Your task to perform on an android device: move an email to a new category in the gmail app Image 0: 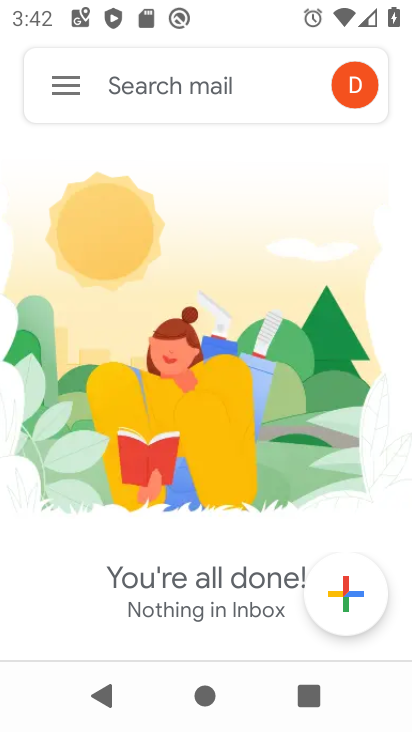
Step 0: press home button
Your task to perform on an android device: move an email to a new category in the gmail app Image 1: 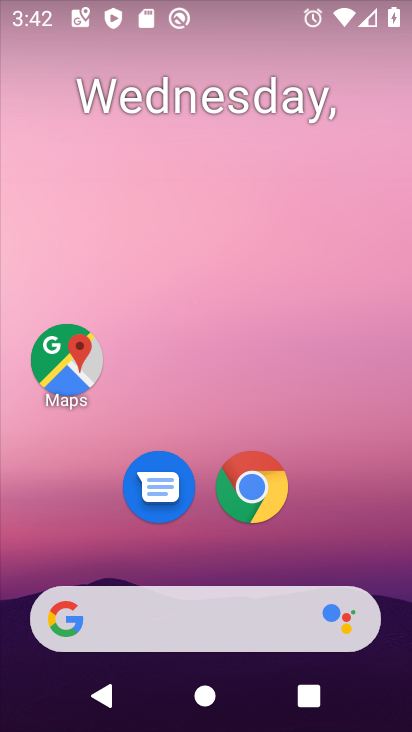
Step 1: drag from (357, 535) to (363, 212)
Your task to perform on an android device: move an email to a new category in the gmail app Image 2: 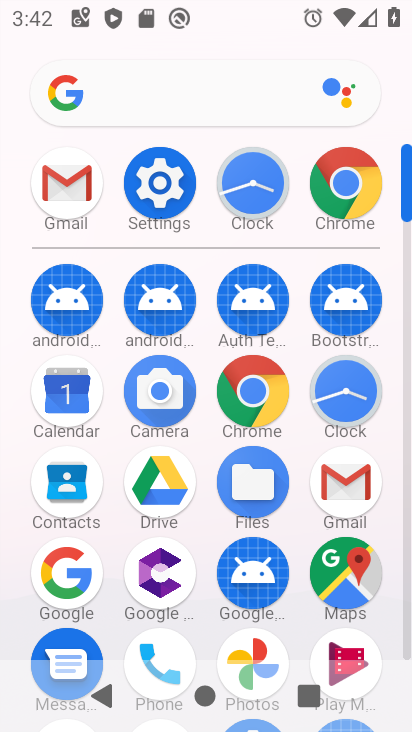
Step 2: click (354, 480)
Your task to perform on an android device: move an email to a new category in the gmail app Image 3: 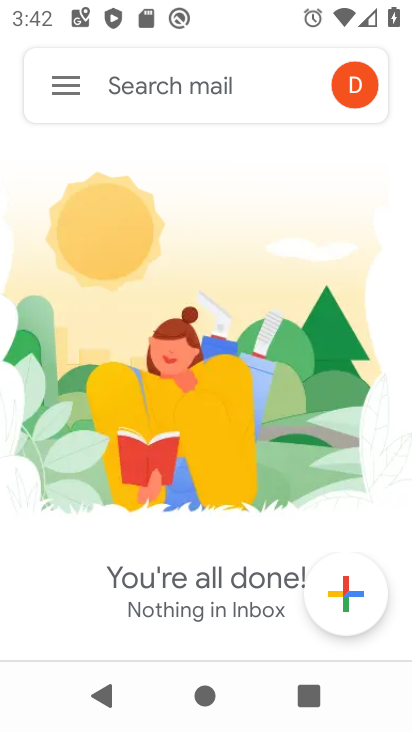
Step 3: click (71, 93)
Your task to perform on an android device: move an email to a new category in the gmail app Image 4: 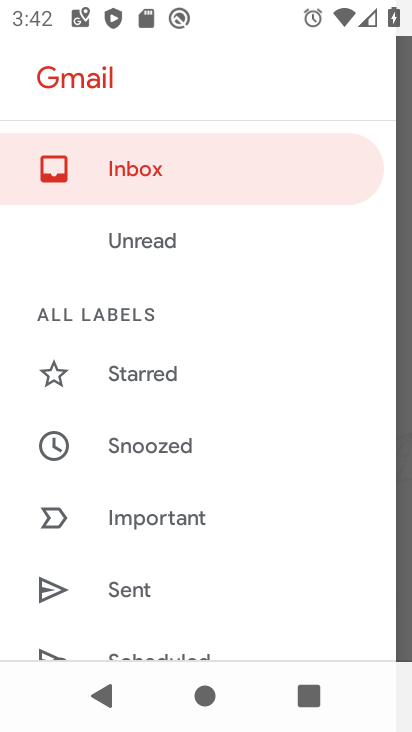
Step 4: drag from (312, 460) to (326, 380)
Your task to perform on an android device: move an email to a new category in the gmail app Image 5: 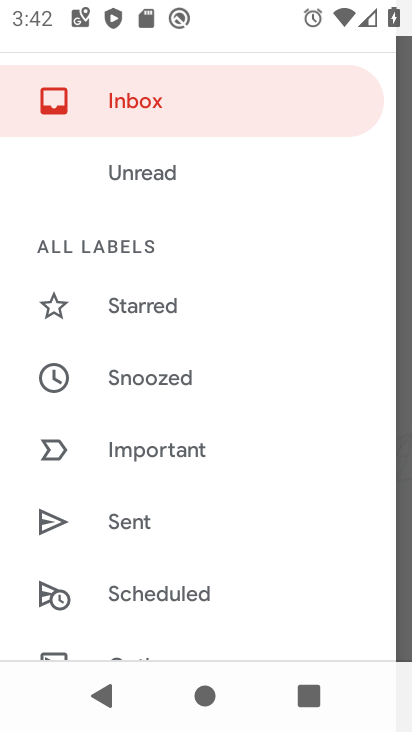
Step 5: drag from (305, 452) to (317, 369)
Your task to perform on an android device: move an email to a new category in the gmail app Image 6: 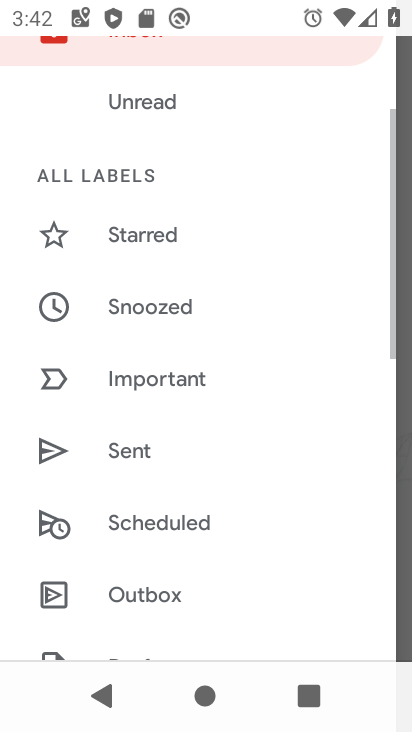
Step 6: drag from (320, 483) to (329, 377)
Your task to perform on an android device: move an email to a new category in the gmail app Image 7: 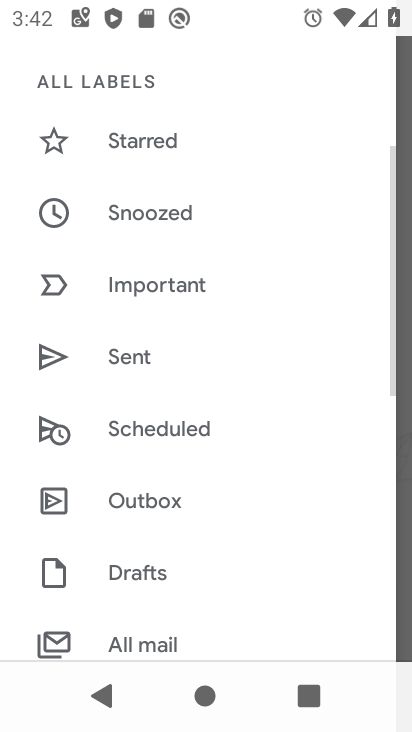
Step 7: drag from (302, 490) to (305, 355)
Your task to perform on an android device: move an email to a new category in the gmail app Image 8: 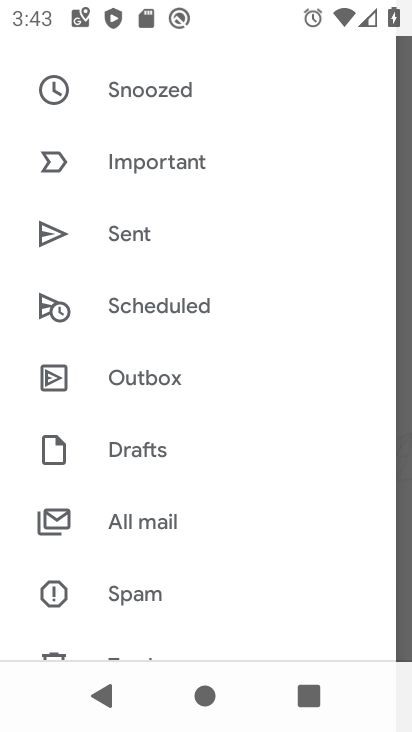
Step 8: drag from (305, 517) to (316, 379)
Your task to perform on an android device: move an email to a new category in the gmail app Image 9: 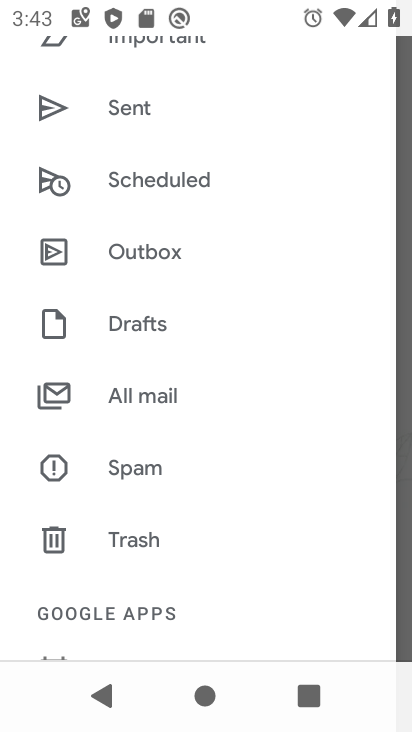
Step 9: drag from (309, 528) to (318, 385)
Your task to perform on an android device: move an email to a new category in the gmail app Image 10: 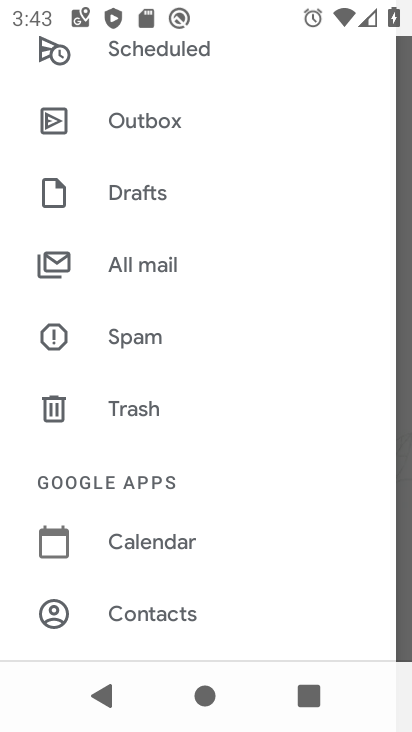
Step 10: drag from (307, 317) to (313, 423)
Your task to perform on an android device: move an email to a new category in the gmail app Image 11: 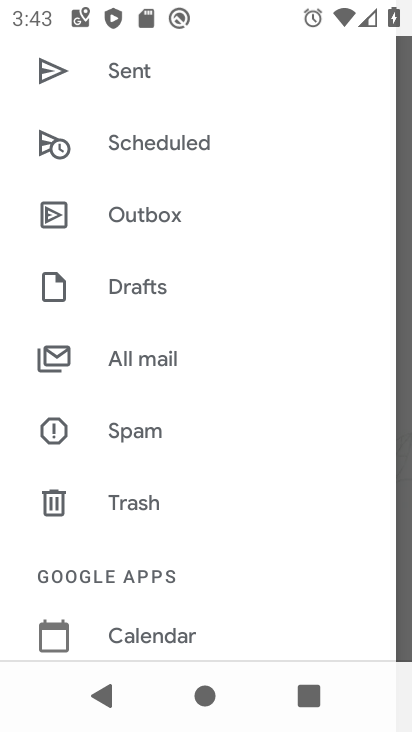
Step 11: drag from (314, 248) to (287, 395)
Your task to perform on an android device: move an email to a new category in the gmail app Image 12: 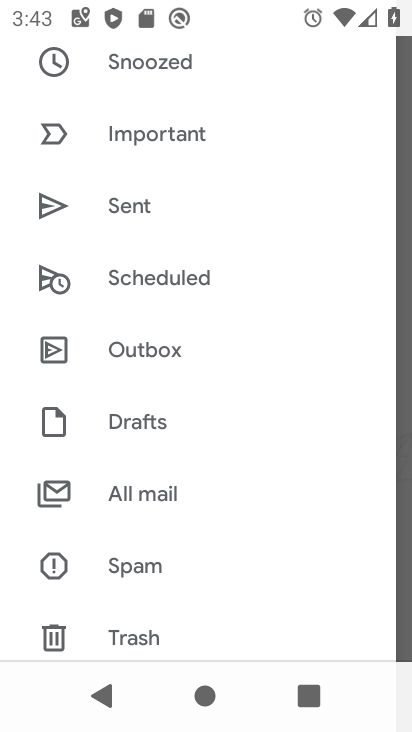
Step 12: drag from (299, 220) to (293, 358)
Your task to perform on an android device: move an email to a new category in the gmail app Image 13: 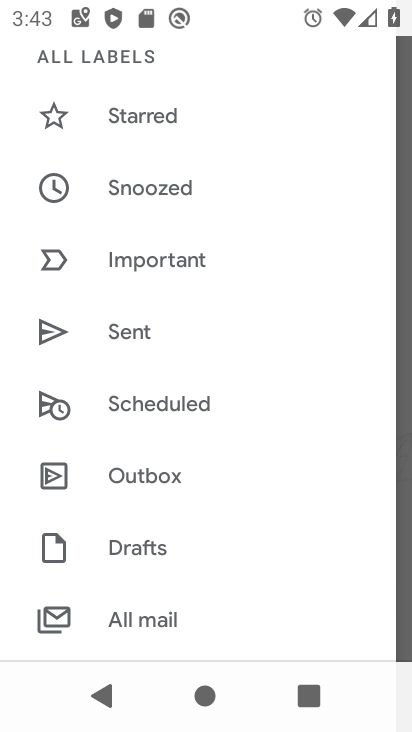
Step 13: drag from (274, 200) to (262, 347)
Your task to perform on an android device: move an email to a new category in the gmail app Image 14: 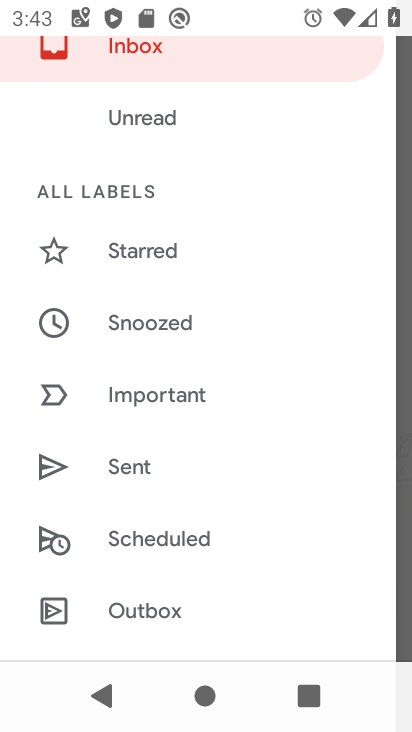
Step 14: drag from (261, 166) to (251, 334)
Your task to perform on an android device: move an email to a new category in the gmail app Image 15: 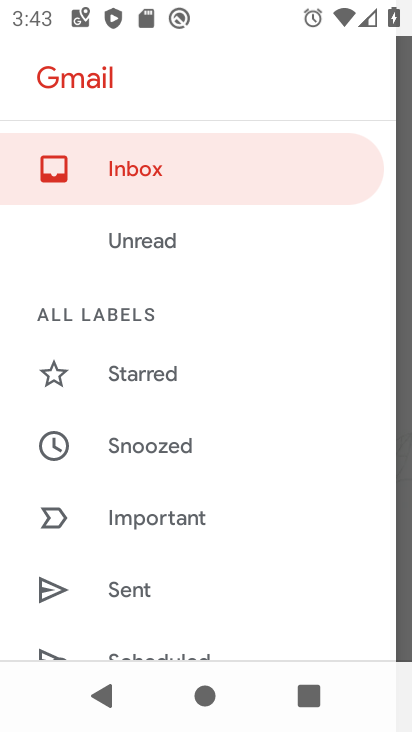
Step 15: click (211, 181)
Your task to perform on an android device: move an email to a new category in the gmail app Image 16: 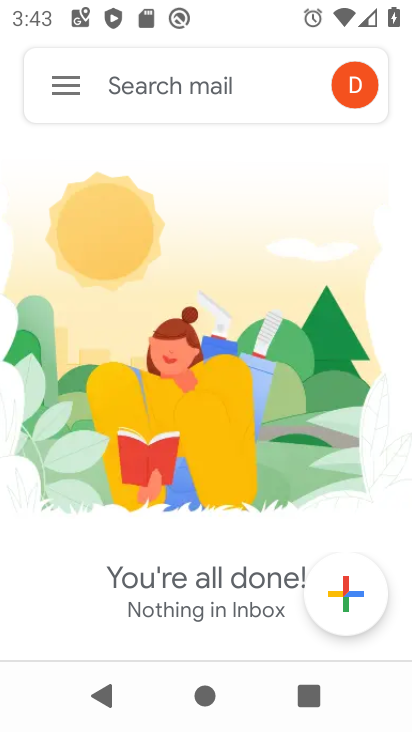
Step 16: task complete